Your task to perform on an android device: What's the weather going to be this weekend? Image 0: 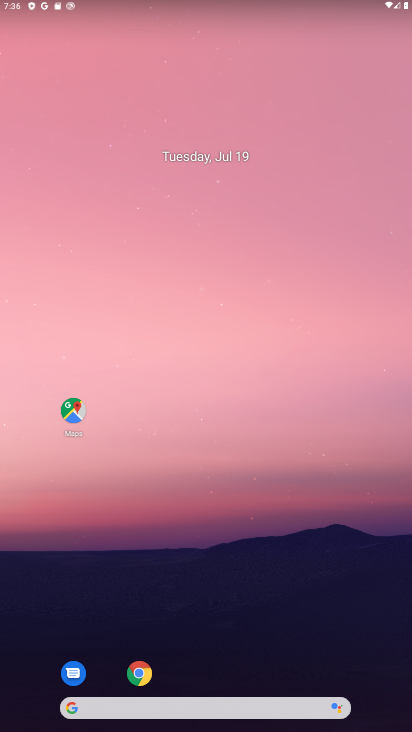
Step 0: drag from (252, 678) to (252, 198)
Your task to perform on an android device: What's the weather going to be this weekend? Image 1: 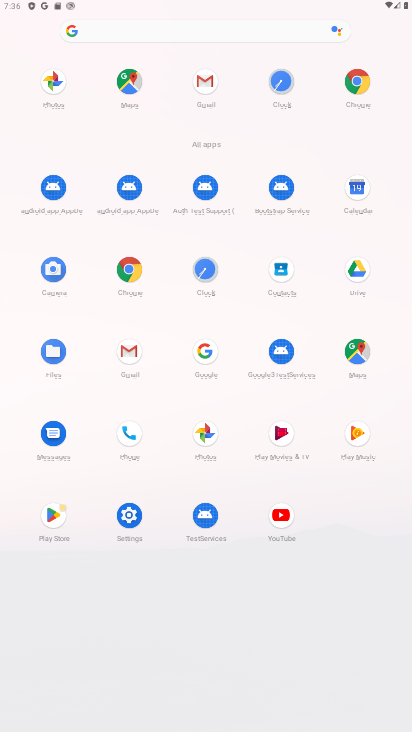
Step 1: click (194, 23)
Your task to perform on an android device: What's the weather going to be this weekend? Image 2: 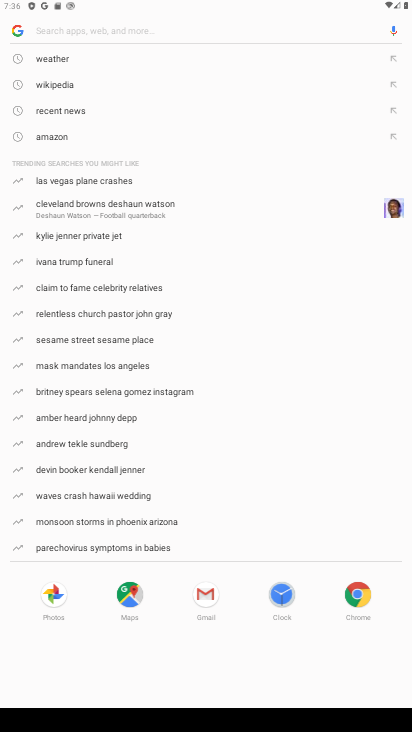
Step 2: type "weekend"
Your task to perform on an android device: What's the weather going to be this weekend? Image 3: 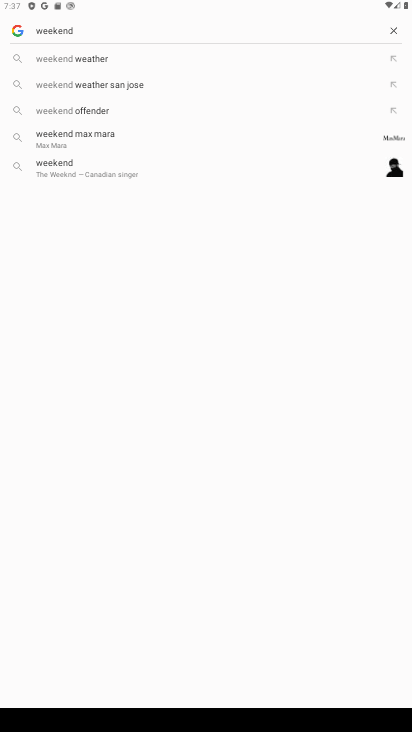
Step 3: click (224, 51)
Your task to perform on an android device: What's the weather going to be this weekend? Image 4: 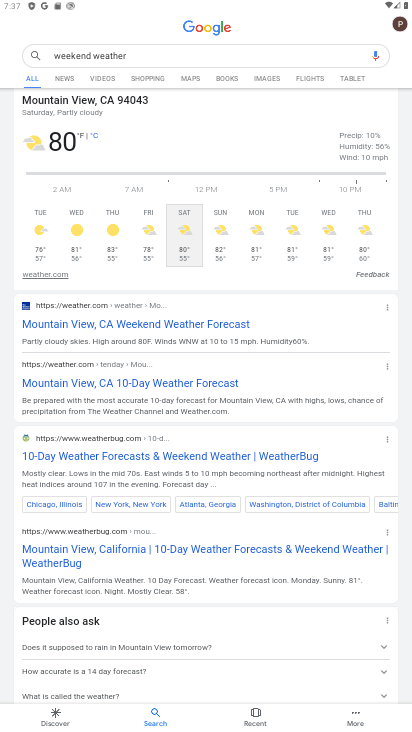
Step 4: task complete